Your task to perform on an android device: see tabs open on other devices in the chrome app Image 0: 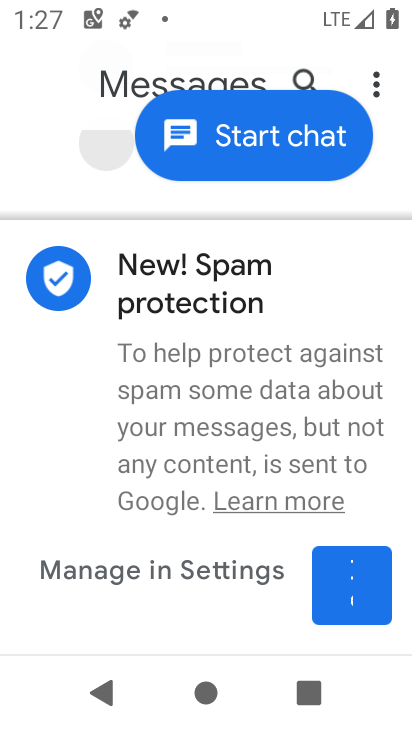
Step 0: press home button
Your task to perform on an android device: see tabs open on other devices in the chrome app Image 1: 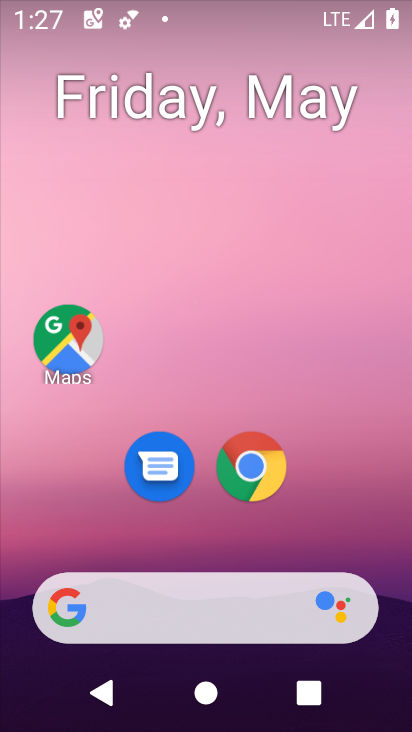
Step 1: drag from (351, 509) to (407, 33)
Your task to perform on an android device: see tabs open on other devices in the chrome app Image 2: 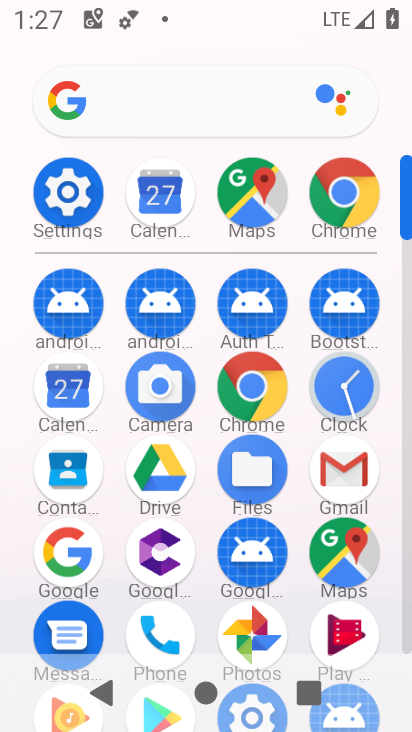
Step 2: click (362, 190)
Your task to perform on an android device: see tabs open on other devices in the chrome app Image 3: 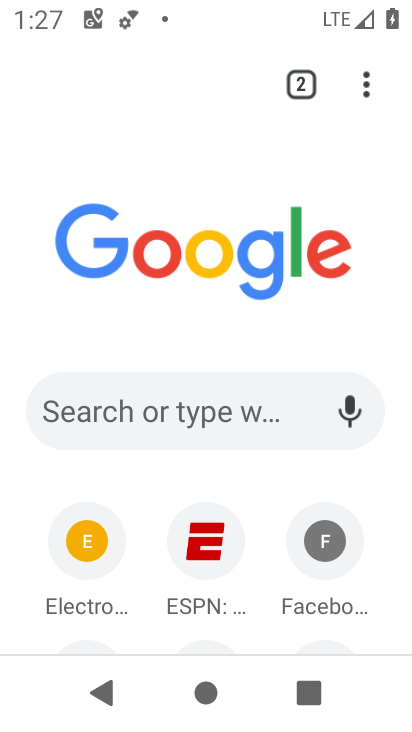
Step 3: task complete